Your task to perform on an android device: Open Wikipedia Image 0: 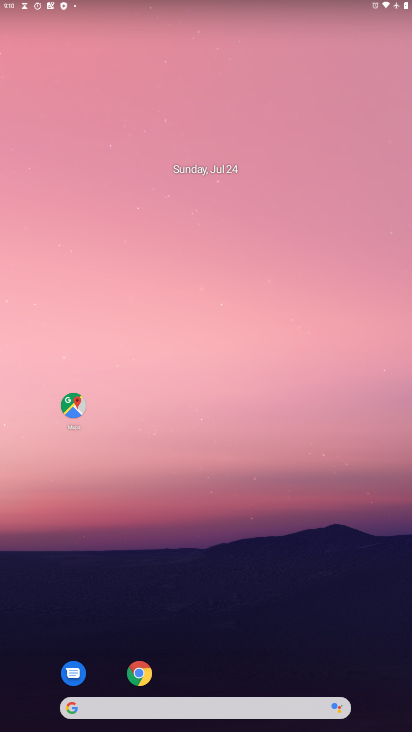
Step 0: drag from (252, 9) to (209, 12)
Your task to perform on an android device: Open Wikipedia Image 1: 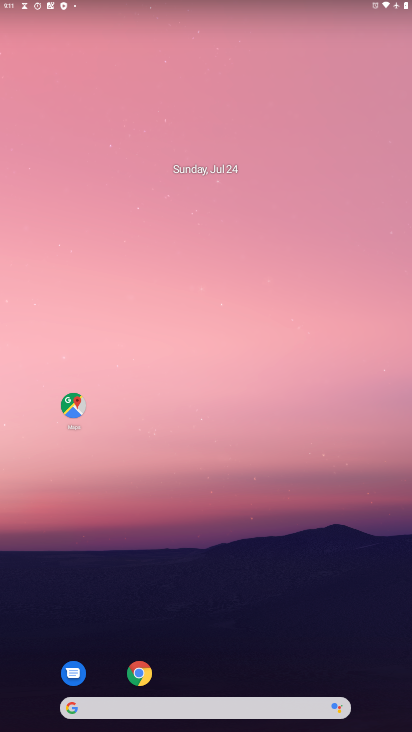
Step 1: press home button
Your task to perform on an android device: Open Wikipedia Image 2: 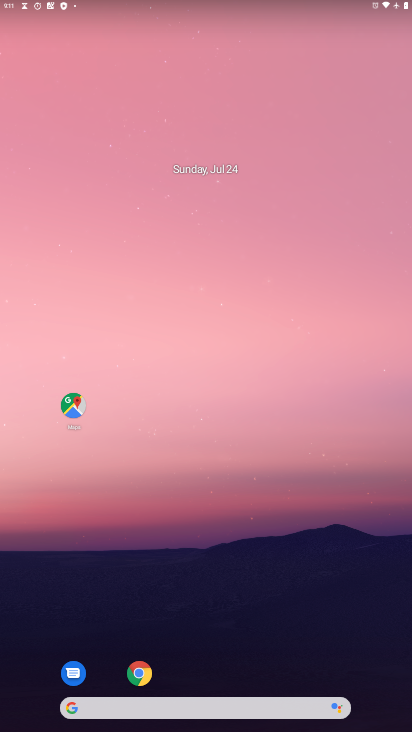
Step 2: drag from (208, 663) to (253, 144)
Your task to perform on an android device: Open Wikipedia Image 3: 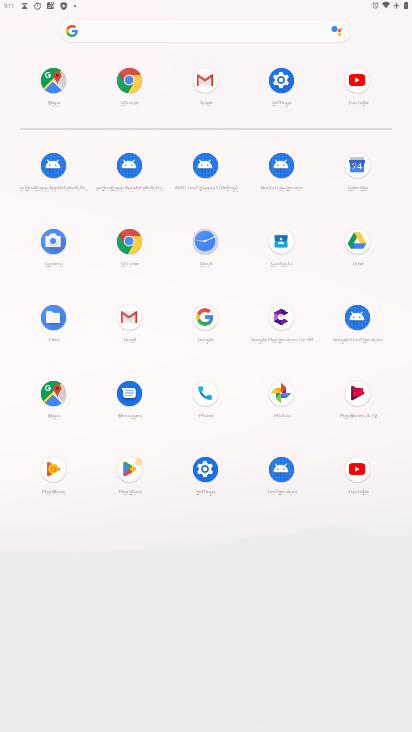
Step 3: click (159, 30)
Your task to perform on an android device: Open Wikipedia Image 4: 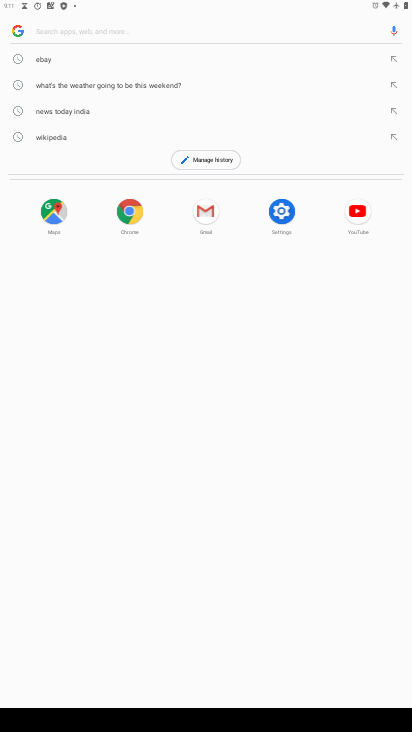
Step 4: type "Wikipedia"
Your task to perform on an android device: Open Wikipedia Image 5: 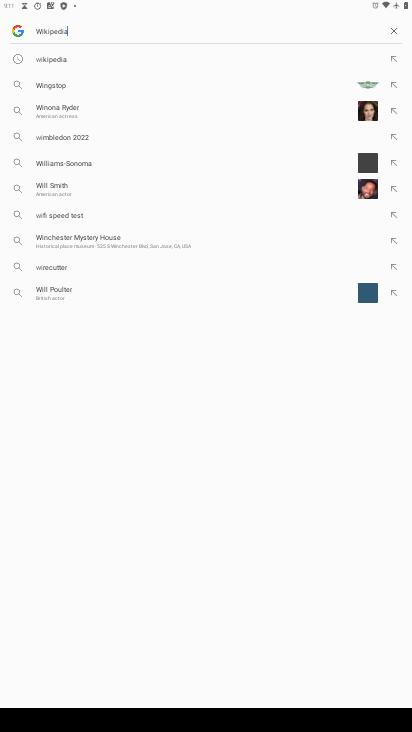
Step 5: type ""
Your task to perform on an android device: Open Wikipedia Image 6: 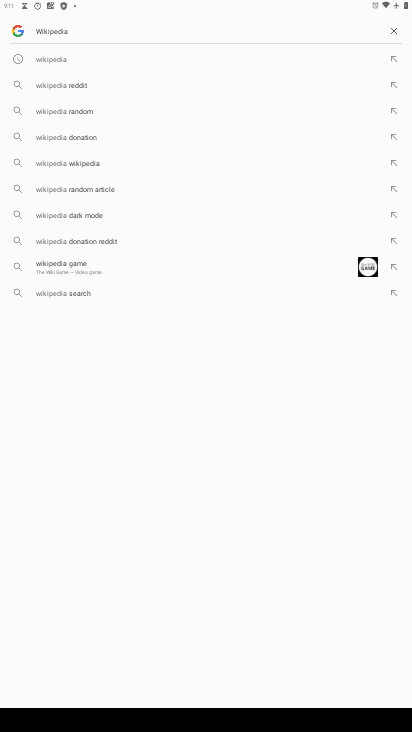
Step 6: click (71, 62)
Your task to perform on an android device: Open Wikipedia Image 7: 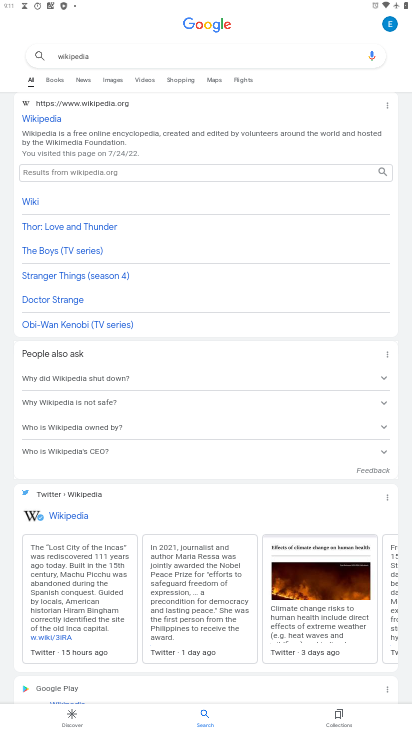
Step 7: click (30, 124)
Your task to perform on an android device: Open Wikipedia Image 8: 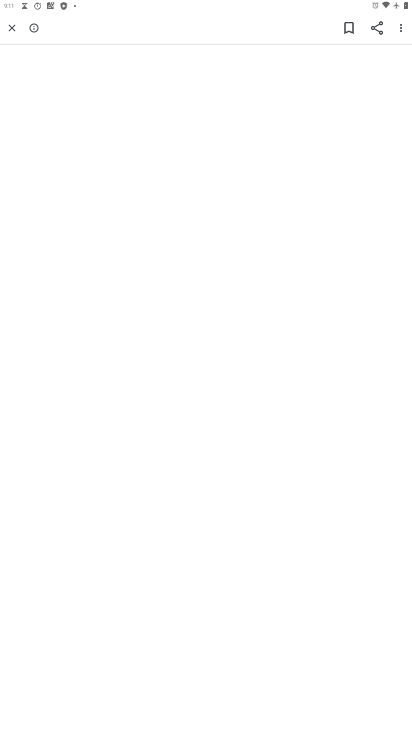
Step 8: task complete